Your task to perform on an android device: What's on my calendar tomorrow? Image 0: 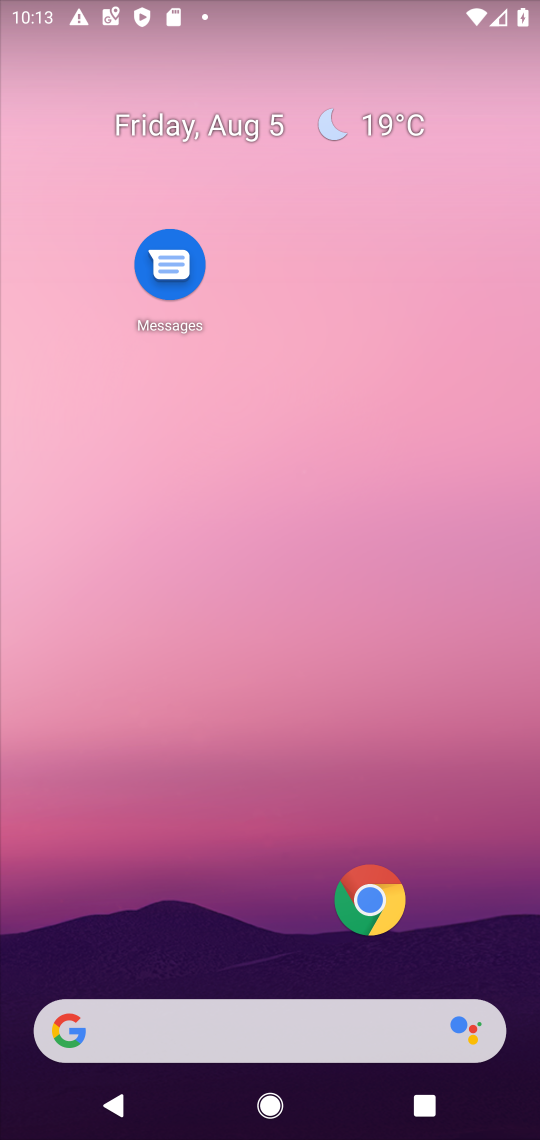
Step 0: drag from (185, 926) to (381, 4)
Your task to perform on an android device: What's on my calendar tomorrow? Image 1: 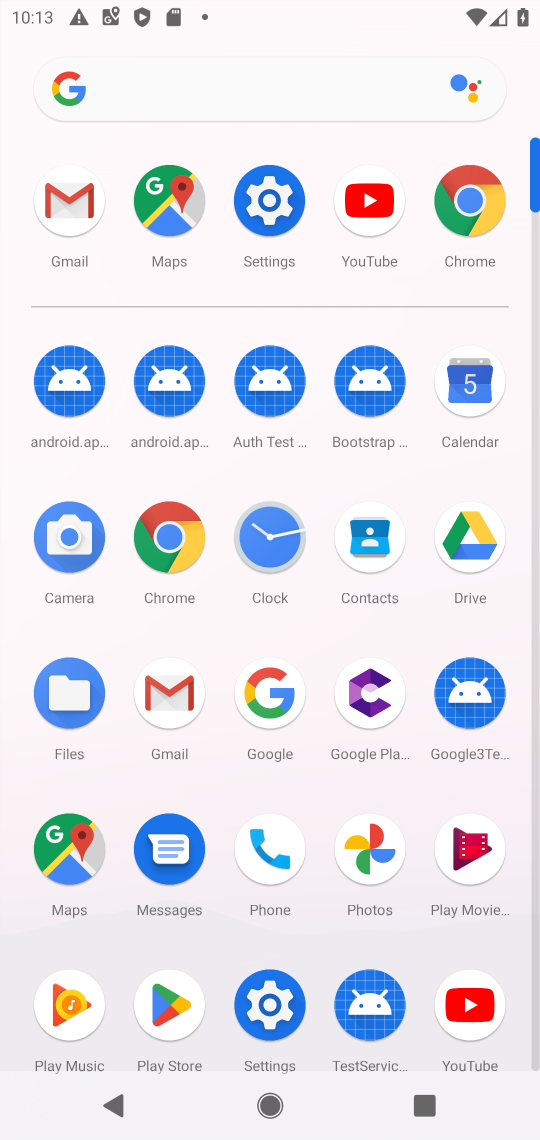
Step 1: click (470, 380)
Your task to perform on an android device: What's on my calendar tomorrow? Image 2: 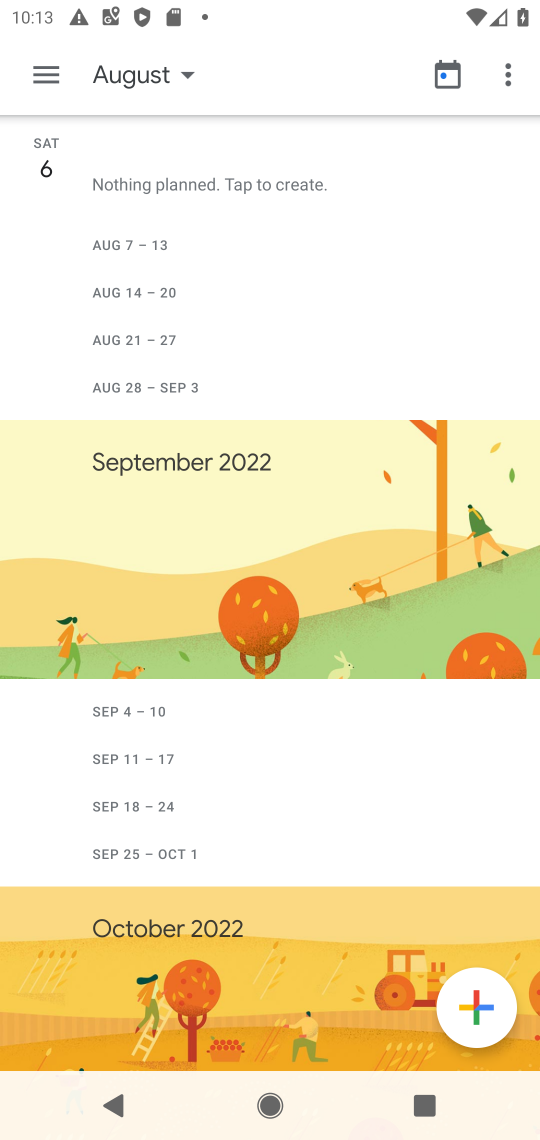
Step 2: click (187, 77)
Your task to perform on an android device: What's on my calendar tomorrow? Image 3: 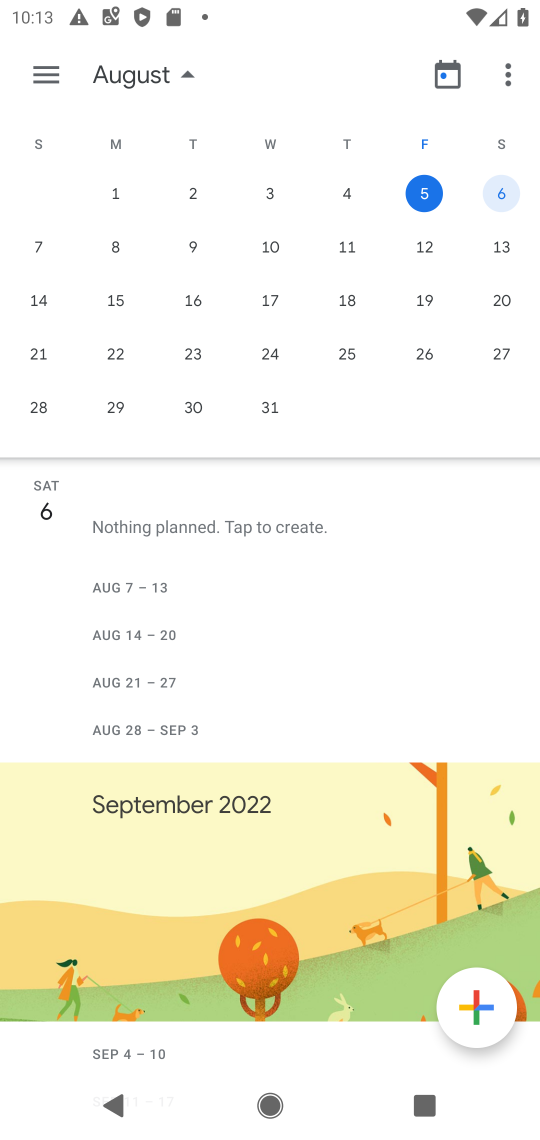
Step 3: click (42, 241)
Your task to perform on an android device: What's on my calendar tomorrow? Image 4: 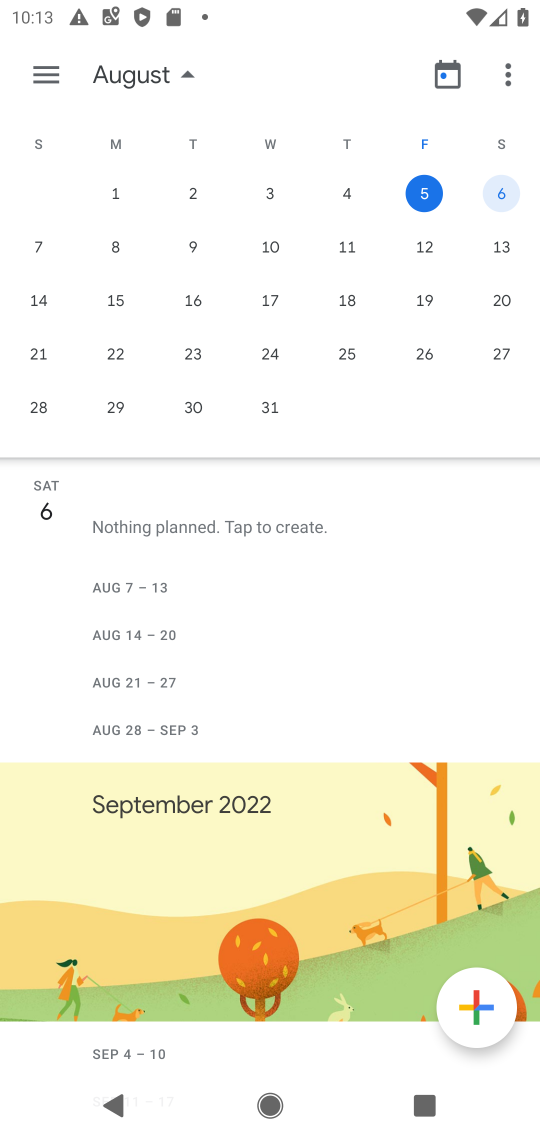
Step 4: click (42, 241)
Your task to perform on an android device: What's on my calendar tomorrow? Image 5: 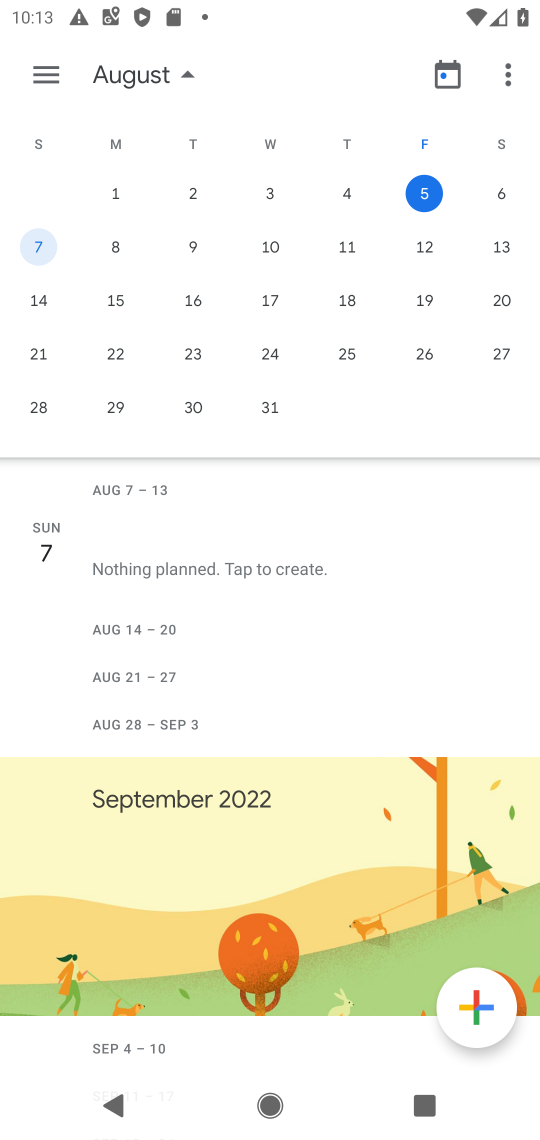
Step 5: task complete